Your task to perform on an android device: manage bookmarks in the chrome app Image 0: 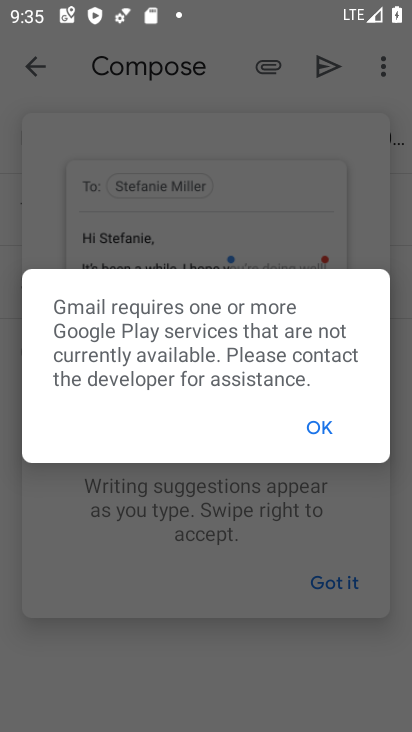
Step 0: click (318, 424)
Your task to perform on an android device: manage bookmarks in the chrome app Image 1: 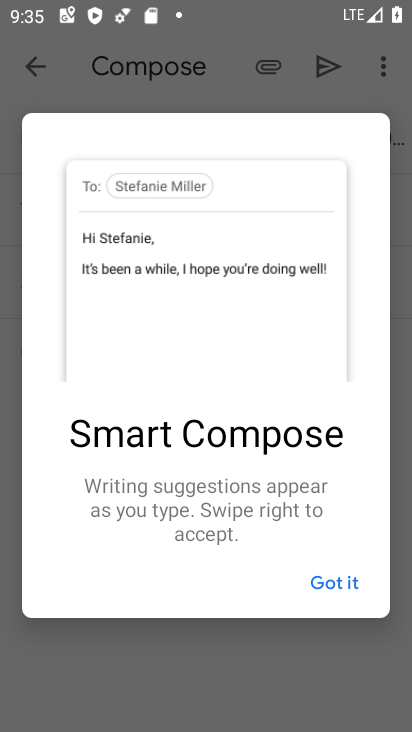
Step 1: press home button
Your task to perform on an android device: manage bookmarks in the chrome app Image 2: 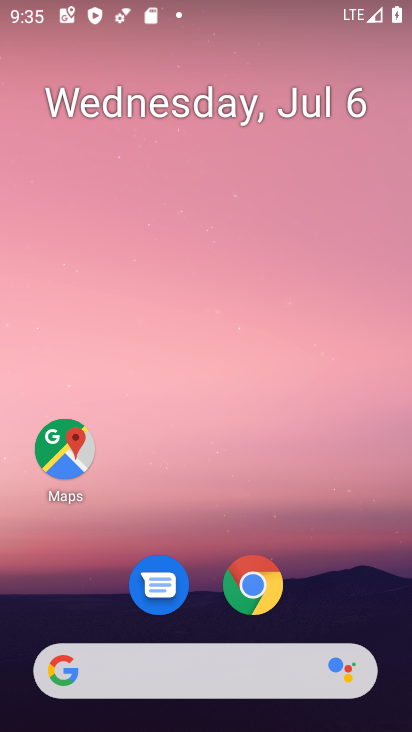
Step 2: click (257, 591)
Your task to perform on an android device: manage bookmarks in the chrome app Image 3: 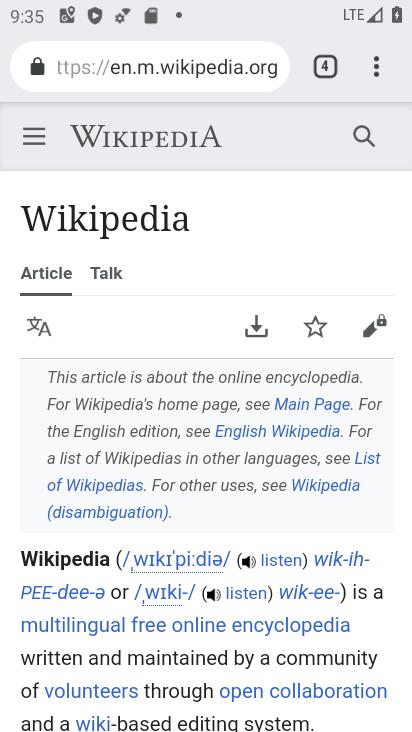
Step 3: click (378, 67)
Your task to perform on an android device: manage bookmarks in the chrome app Image 4: 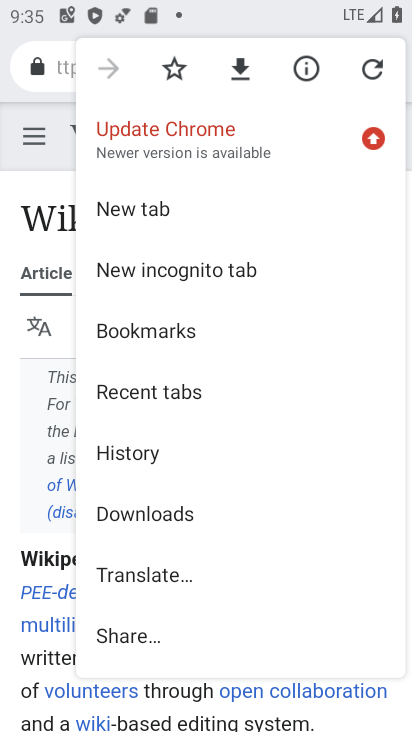
Step 4: click (196, 328)
Your task to perform on an android device: manage bookmarks in the chrome app Image 5: 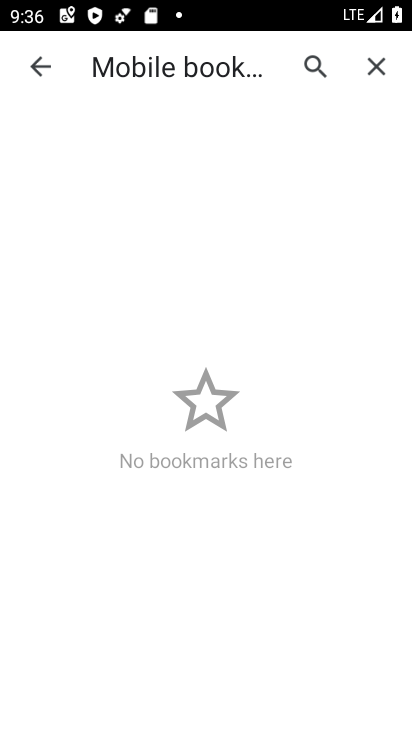
Step 5: task complete